Your task to perform on an android device: visit the assistant section in the google photos Image 0: 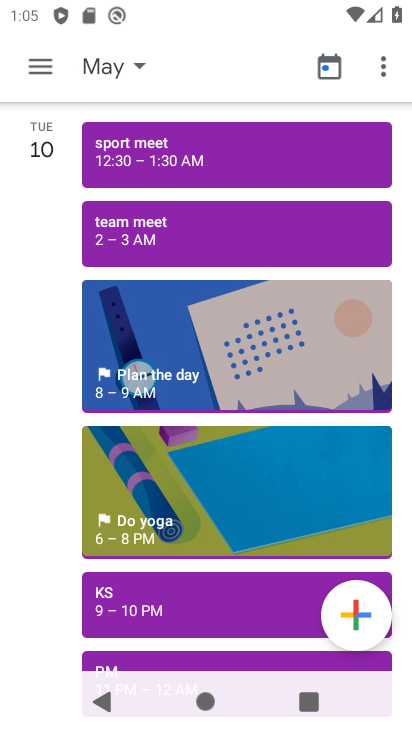
Step 0: press home button
Your task to perform on an android device: visit the assistant section in the google photos Image 1: 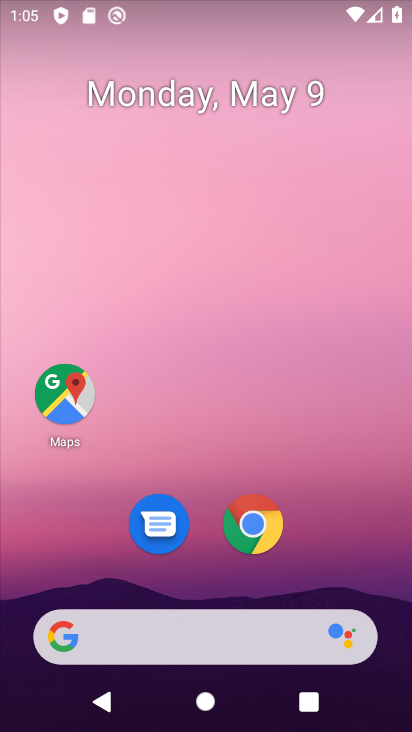
Step 1: drag from (328, 528) to (277, 0)
Your task to perform on an android device: visit the assistant section in the google photos Image 2: 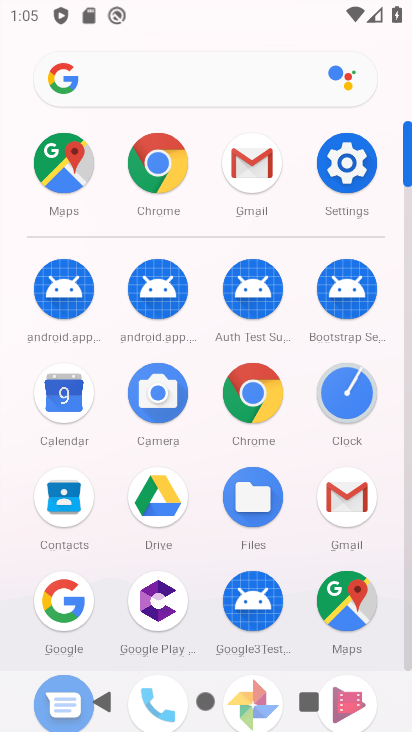
Step 2: drag from (195, 559) to (177, 396)
Your task to perform on an android device: visit the assistant section in the google photos Image 3: 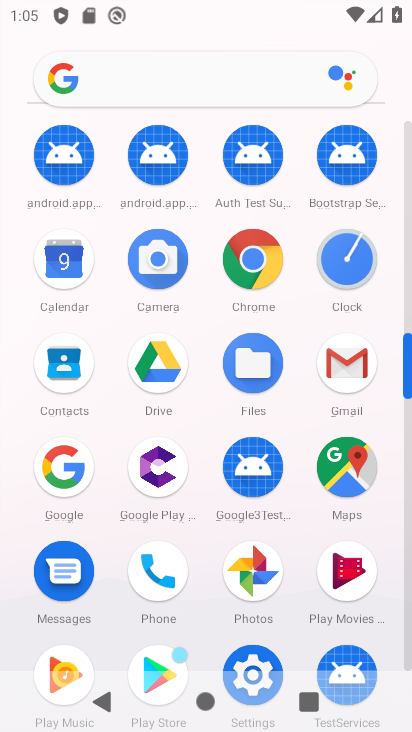
Step 3: click (251, 552)
Your task to perform on an android device: visit the assistant section in the google photos Image 4: 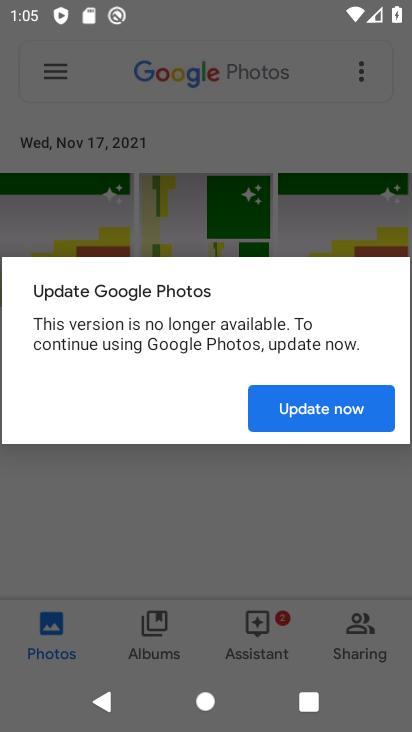
Step 4: click (319, 409)
Your task to perform on an android device: visit the assistant section in the google photos Image 5: 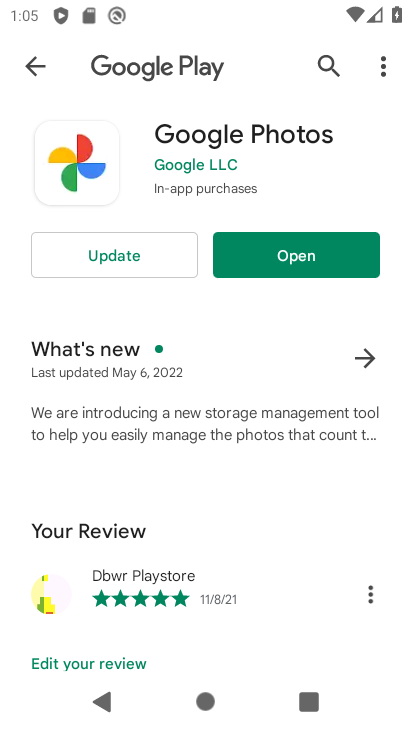
Step 5: click (328, 262)
Your task to perform on an android device: visit the assistant section in the google photos Image 6: 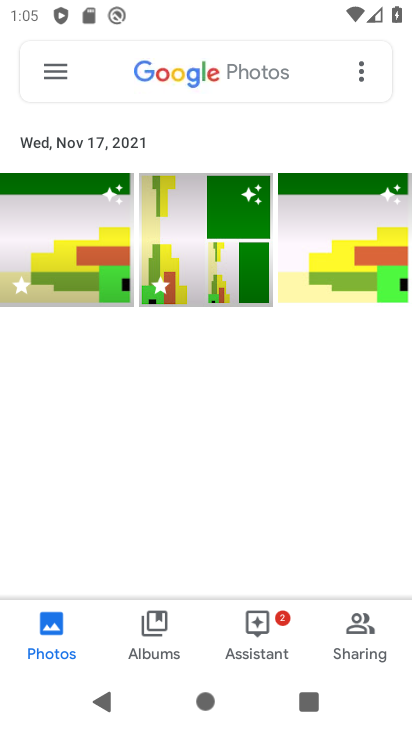
Step 6: click (251, 614)
Your task to perform on an android device: visit the assistant section in the google photos Image 7: 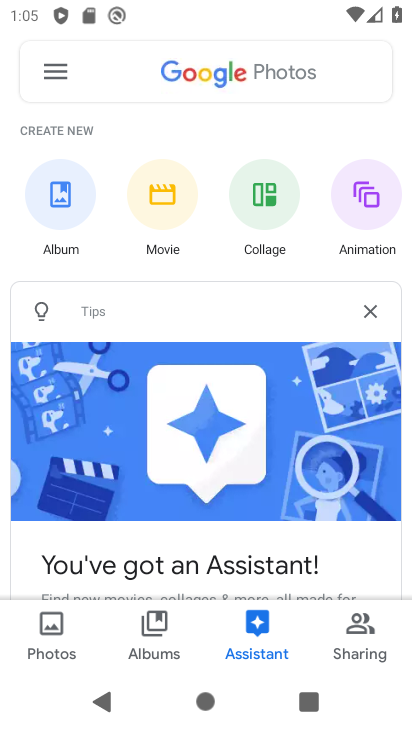
Step 7: task complete